Your task to perform on an android device: Show me productivity apps on the Play Store Image 0: 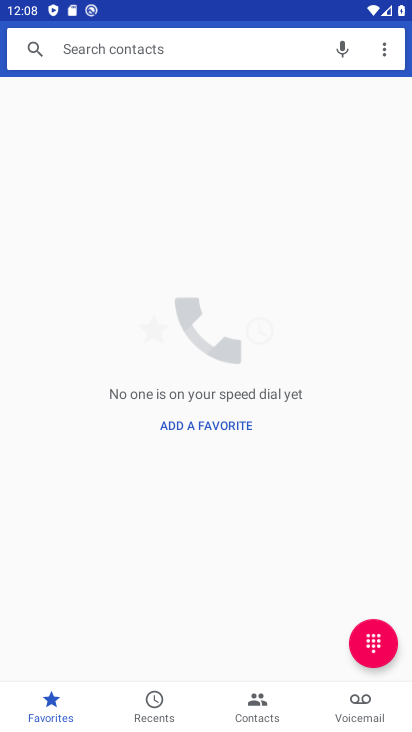
Step 0: press home button
Your task to perform on an android device: Show me productivity apps on the Play Store Image 1: 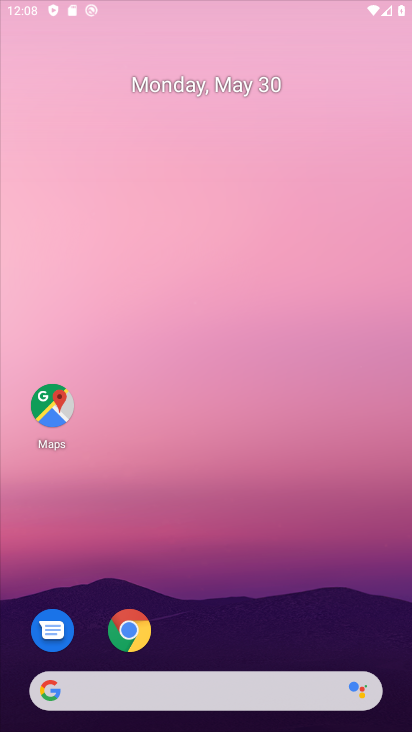
Step 1: drag from (82, 721) to (104, 51)
Your task to perform on an android device: Show me productivity apps on the Play Store Image 2: 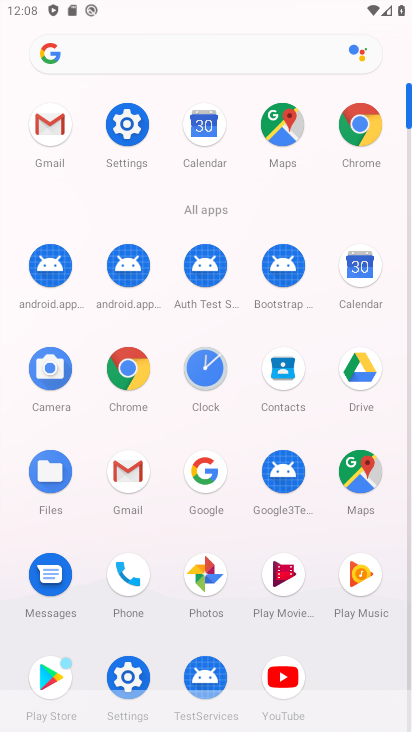
Step 2: click (53, 677)
Your task to perform on an android device: Show me productivity apps on the Play Store Image 3: 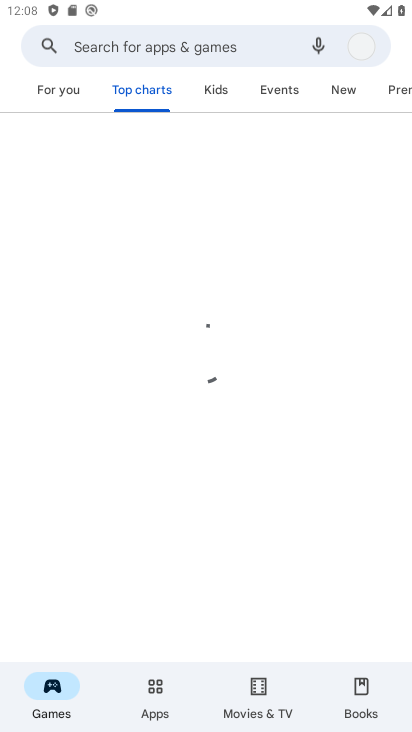
Step 3: click (169, 695)
Your task to perform on an android device: Show me productivity apps on the Play Store Image 4: 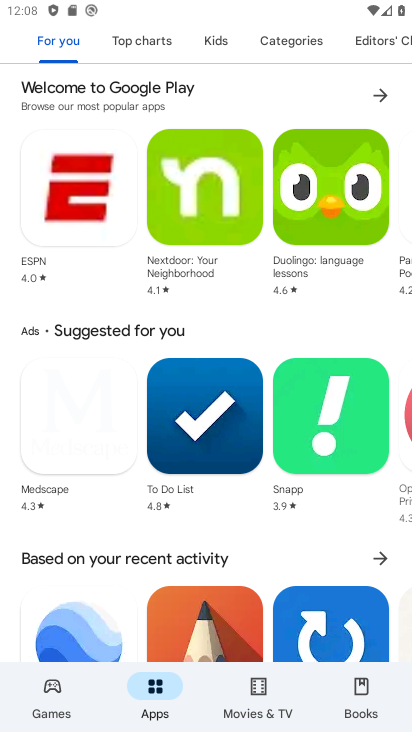
Step 4: click (301, 39)
Your task to perform on an android device: Show me productivity apps on the Play Store Image 5: 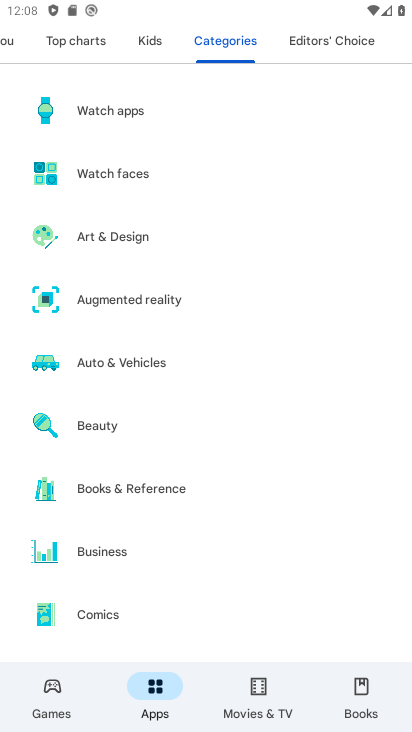
Step 5: drag from (137, 626) to (139, 95)
Your task to perform on an android device: Show me productivity apps on the Play Store Image 6: 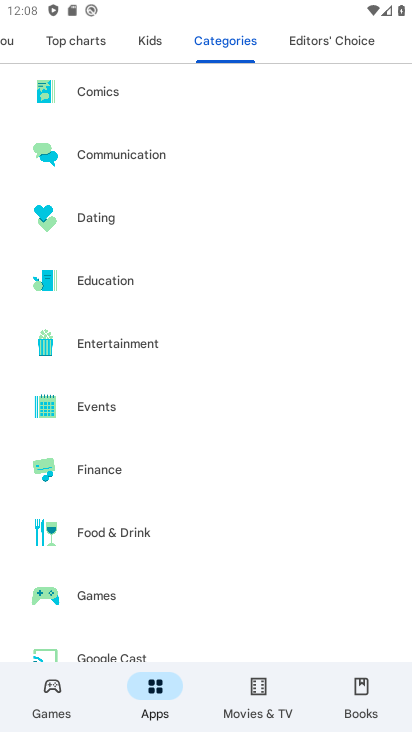
Step 6: drag from (64, 632) to (43, 107)
Your task to perform on an android device: Show me productivity apps on the Play Store Image 7: 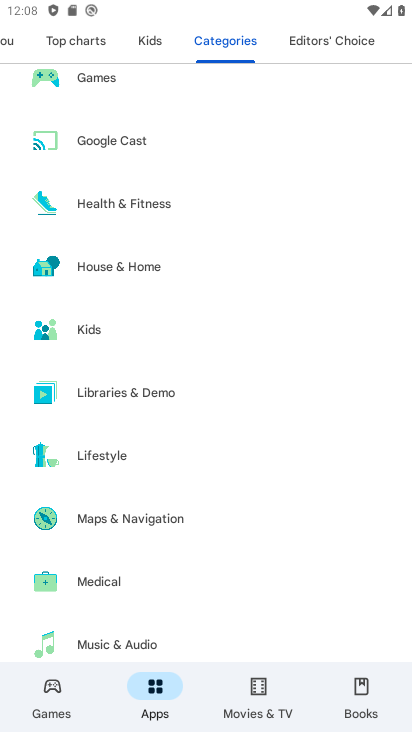
Step 7: drag from (46, 653) to (113, 122)
Your task to perform on an android device: Show me productivity apps on the Play Store Image 8: 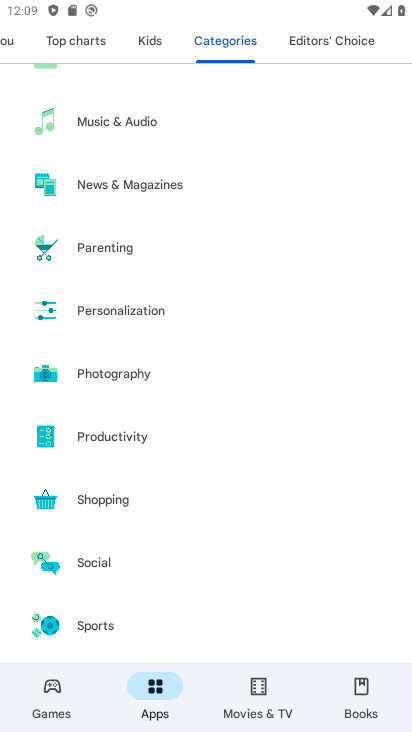
Step 8: click (126, 441)
Your task to perform on an android device: Show me productivity apps on the Play Store Image 9: 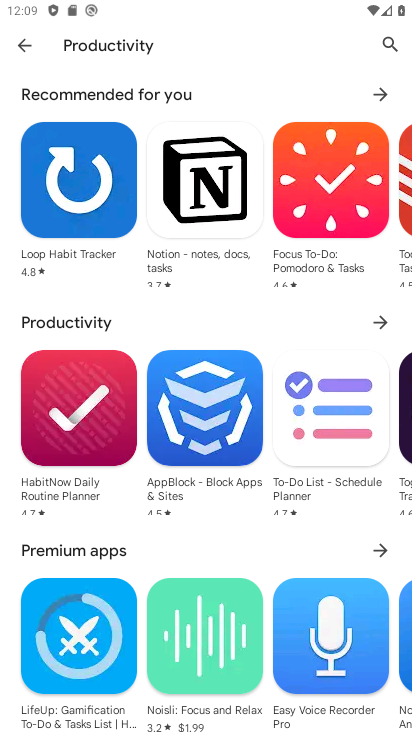
Step 9: task complete